Your task to perform on an android device: Open Google Image 0: 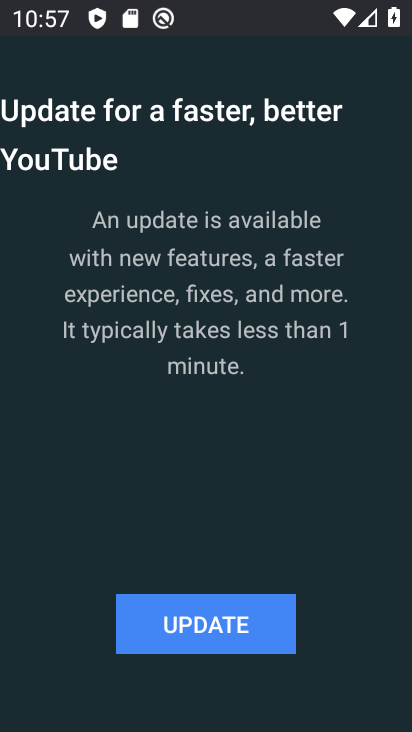
Step 0: press back button
Your task to perform on an android device: Open Google Image 1: 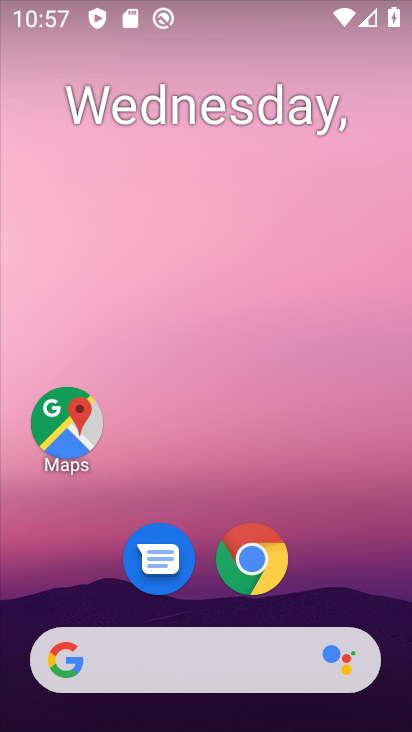
Step 1: drag from (378, 569) to (323, 201)
Your task to perform on an android device: Open Google Image 2: 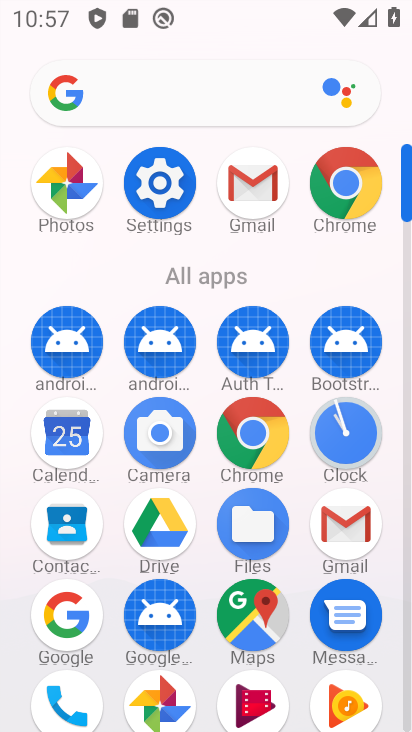
Step 2: click (81, 628)
Your task to perform on an android device: Open Google Image 3: 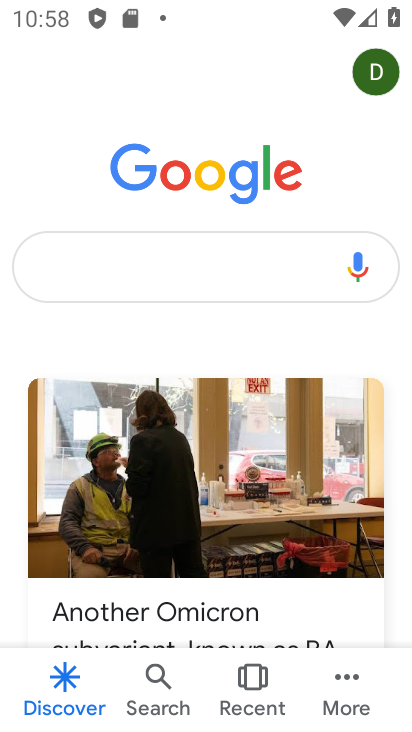
Step 3: task complete